Your task to perform on an android device: Search for dell xps on costco.com, select the first entry, add it to the cart, then select checkout. Image 0: 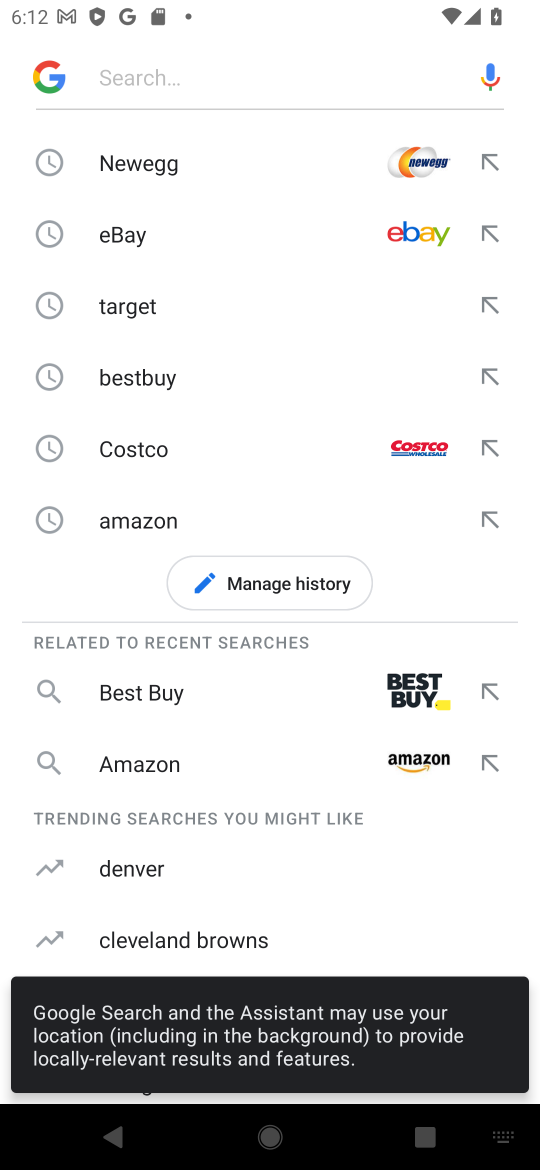
Step 0: click (136, 448)
Your task to perform on an android device: Search for dell xps on costco.com, select the first entry, add it to the cart, then select checkout. Image 1: 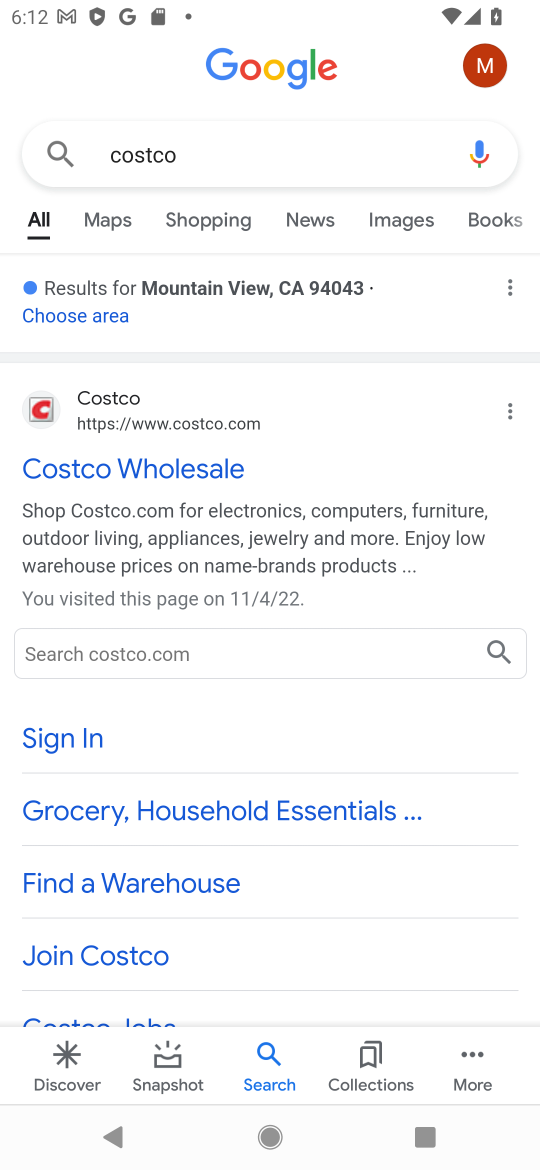
Step 1: click (126, 643)
Your task to perform on an android device: Search for dell xps on costco.com, select the first entry, add it to the cart, then select checkout. Image 2: 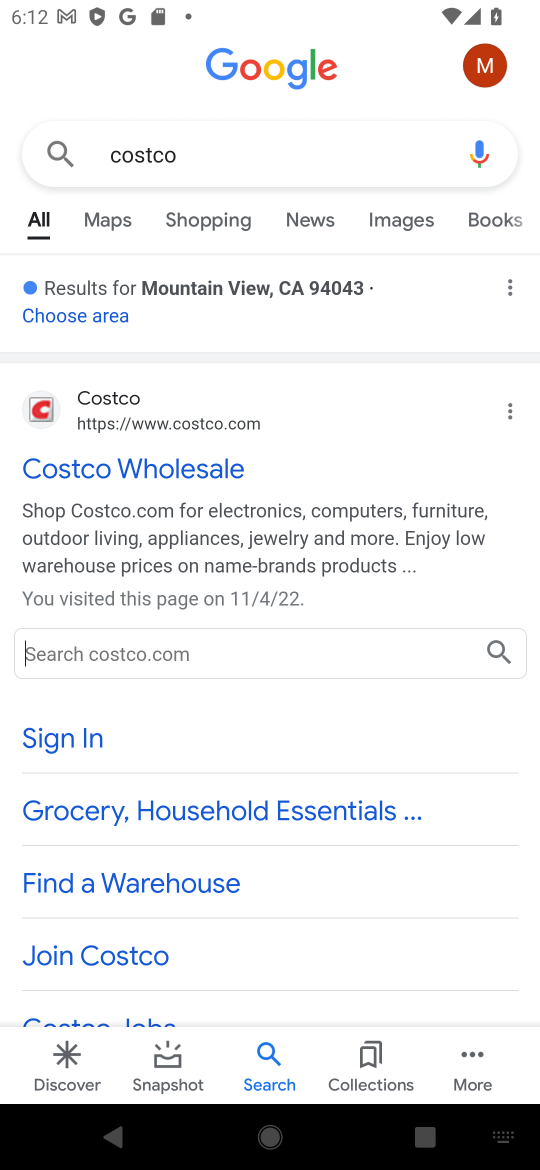
Step 2: type "dell xps"
Your task to perform on an android device: Search for dell xps on costco.com, select the first entry, add it to the cart, then select checkout. Image 3: 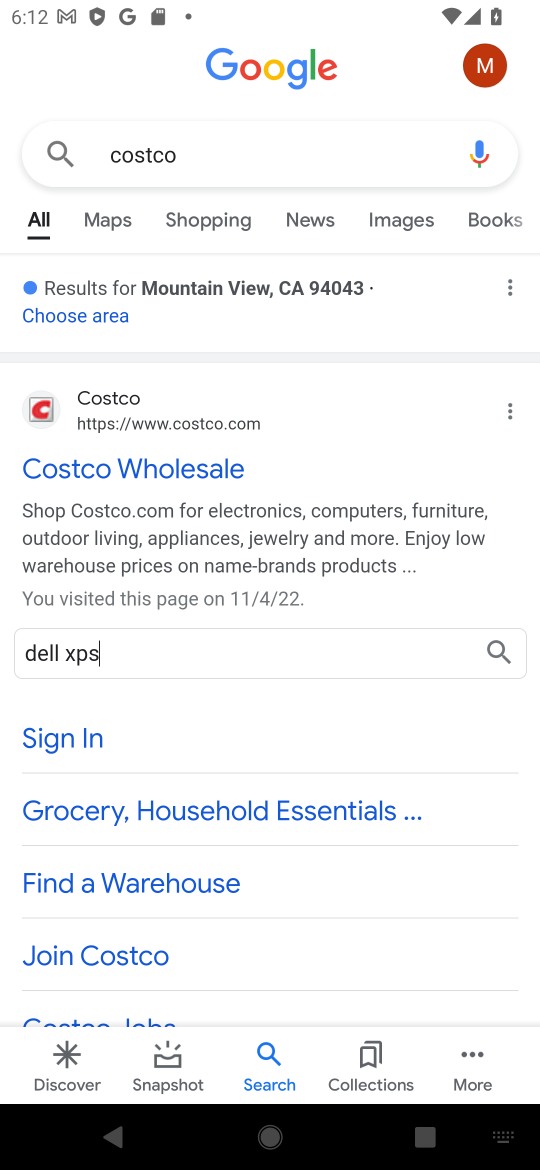
Step 3: click (499, 648)
Your task to perform on an android device: Search for dell xps on costco.com, select the first entry, add it to the cart, then select checkout. Image 4: 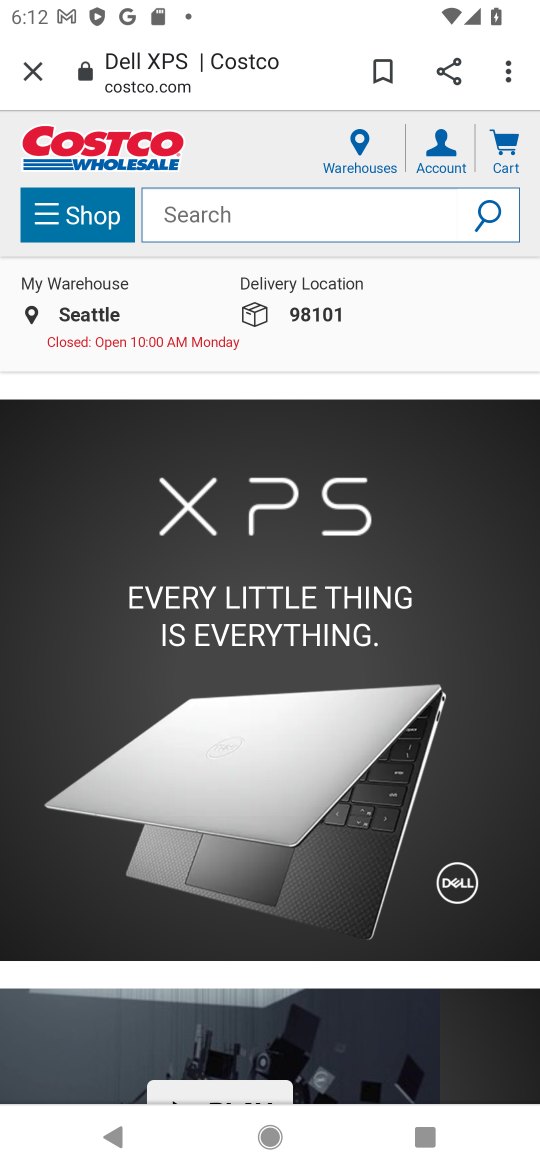
Step 4: drag from (441, 972) to (386, 39)
Your task to perform on an android device: Search for dell xps on costco.com, select the first entry, add it to the cart, then select checkout. Image 5: 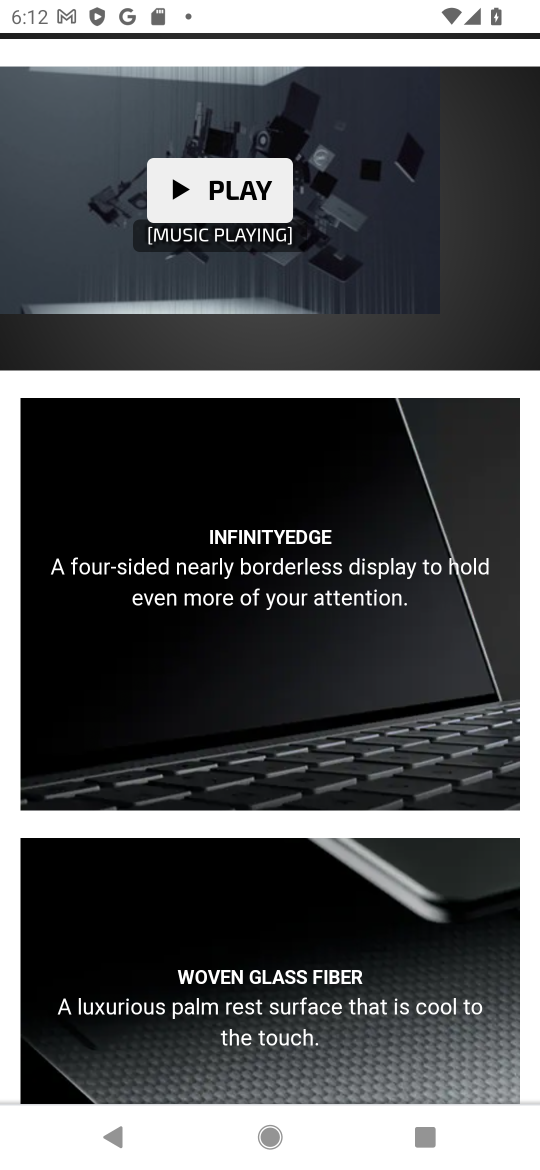
Step 5: drag from (414, 721) to (406, 108)
Your task to perform on an android device: Search for dell xps on costco.com, select the first entry, add it to the cart, then select checkout. Image 6: 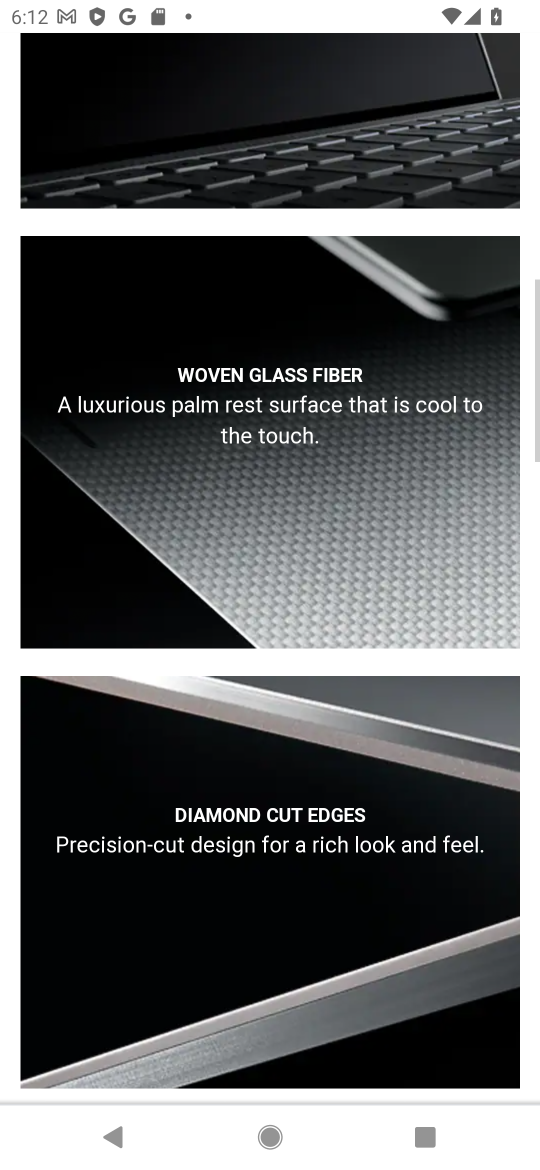
Step 6: drag from (299, 457) to (359, 356)
Your task to perform on an android device: Search for dell xps on costco.com, select the first entry, add it to the cart, then select checkout. Image 7: 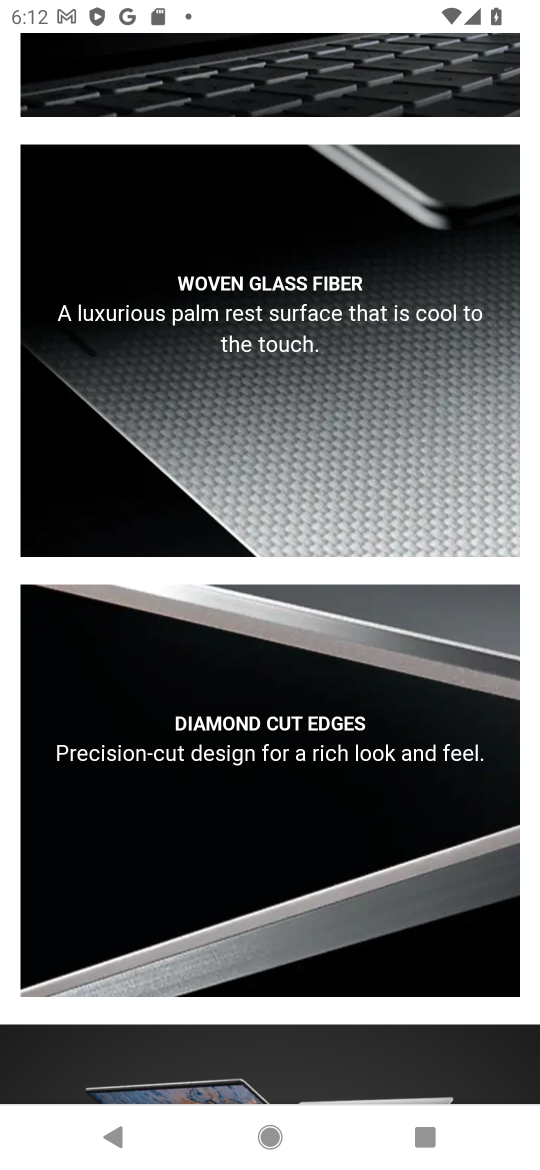
Step 7: drag from (497, 424) to (537, 148)
Your task to perform on an android device: Search for dell xps on costco.com, select the first entry, add it to the cart, then select checkout. Image 8: 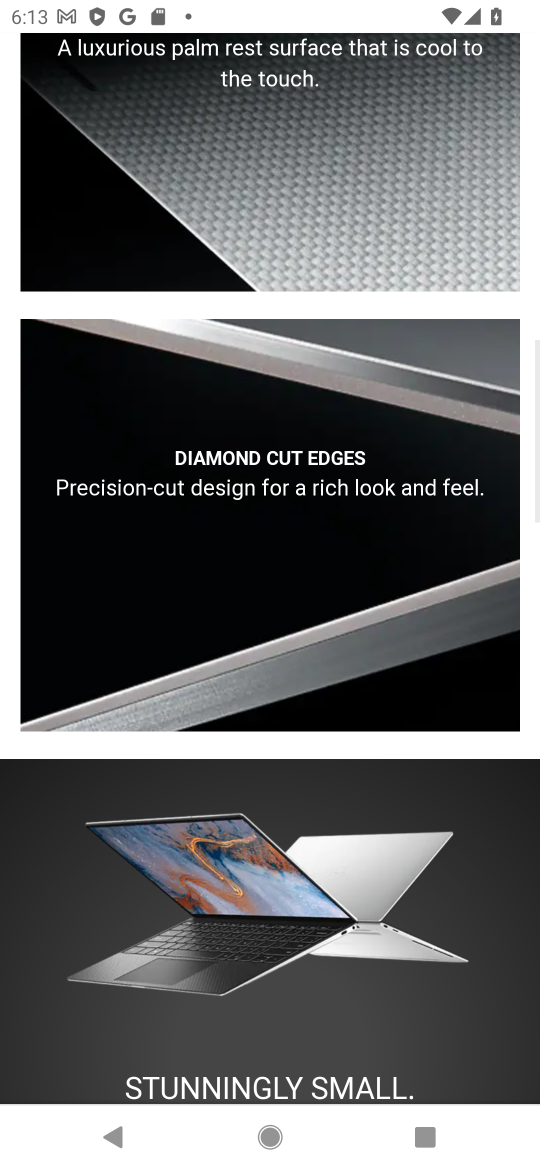
Step 8: drag from (389, 800) to (525, 302)
Your task to perform on an android device: Search for dell xps on costco.com, select the first entry, add it to the cart, then select checkout. Image 9: 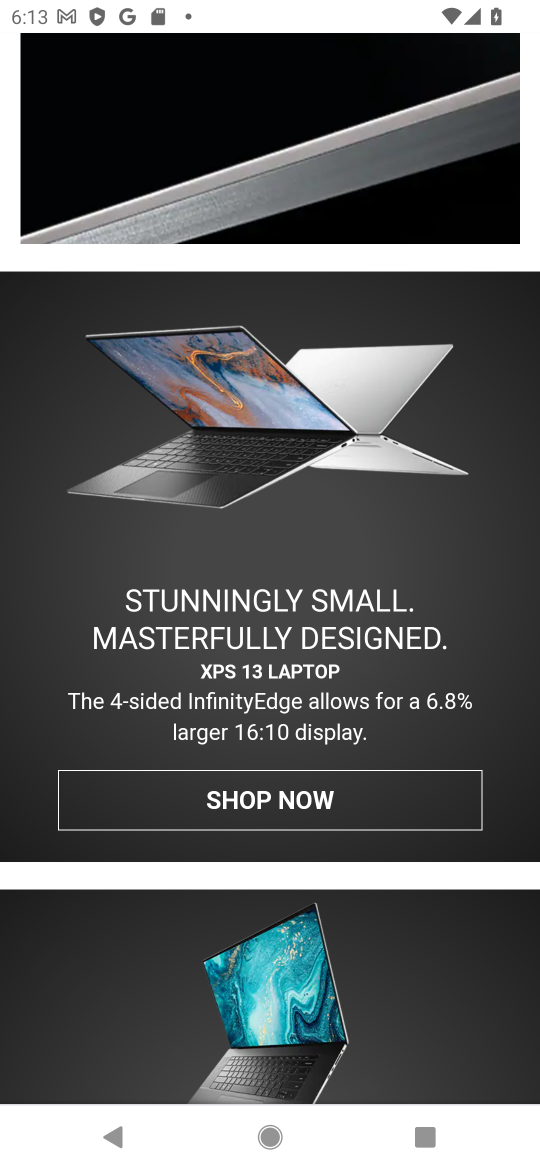
Step 9: click (300, 797)
Your task to perform on an android device: Search for dell xps on costco.com, select the first entry, add it to the cart, then select checkout. Image 10: 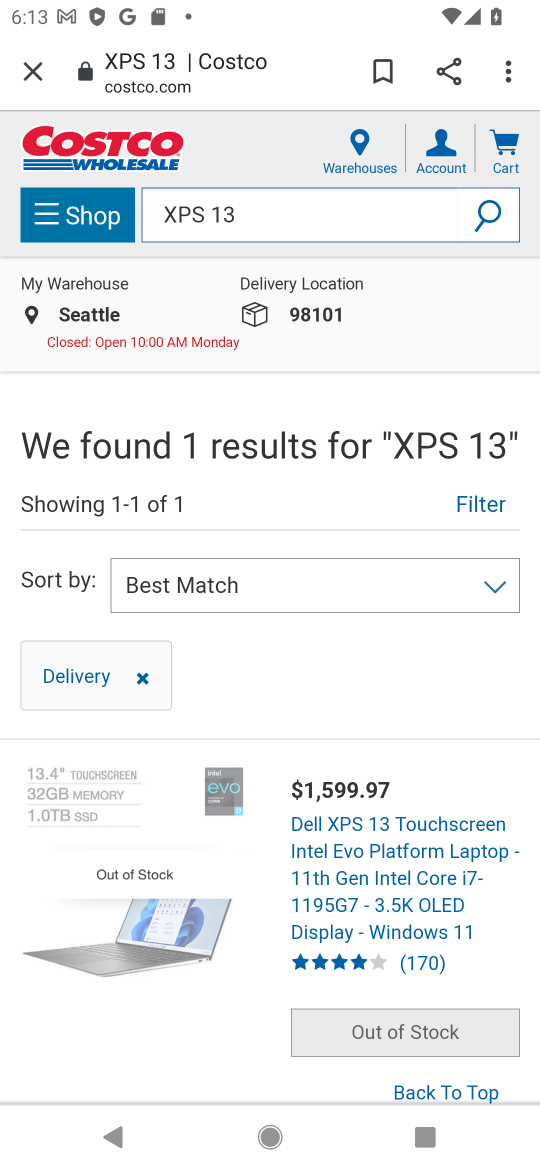
Step 10: task complete